Your task to perform on an android device: turn off sleep mode Image 0: 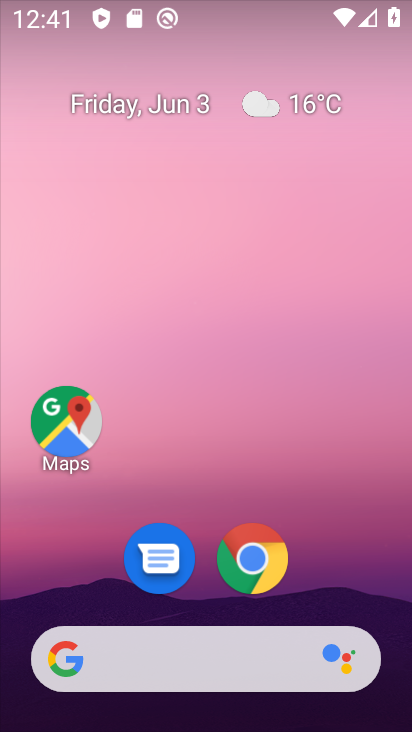
Step 0: drag from (378, 592) to (381, 304)
Your task to perform on an android device: turn off sleep mode Image 1: 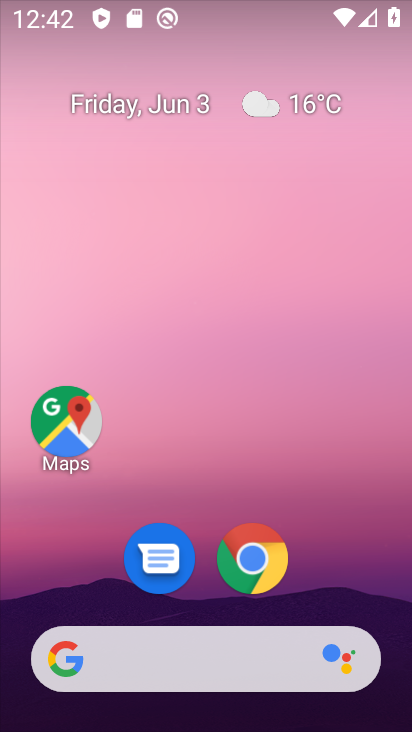
Step 1: drag from (343, 584) to (334, 172)
Your task to perform on an android device: turn off sleep mode Image 2: 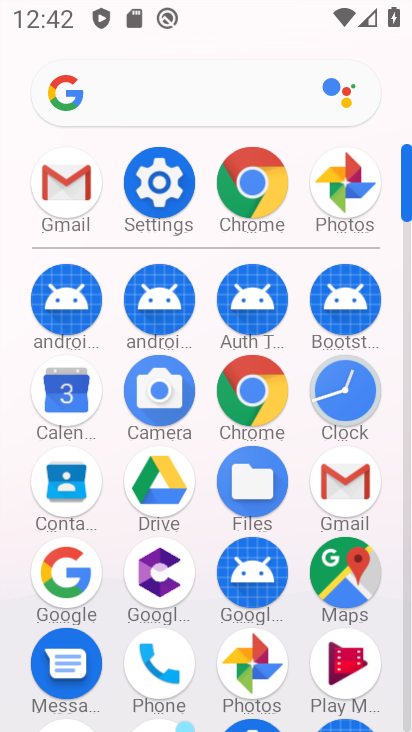
Step 2: click (146, 190)
Your task to perform on an android device: turn off sleep mode Image 3: 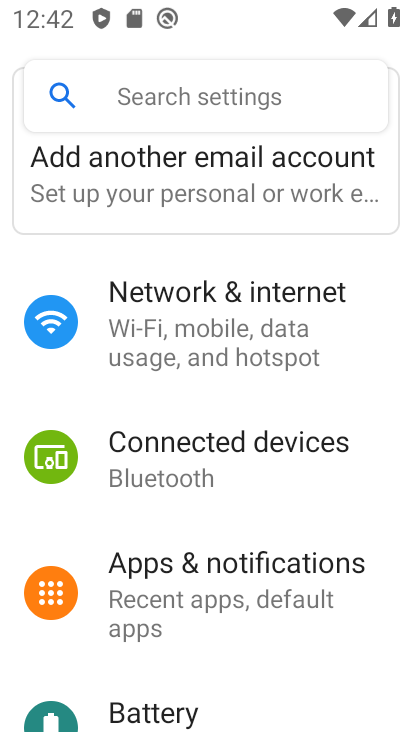
Step 3: drag from (348, 594) to (344, 397)
Your task to perform on an android device: turn off sleep mode Image 4: 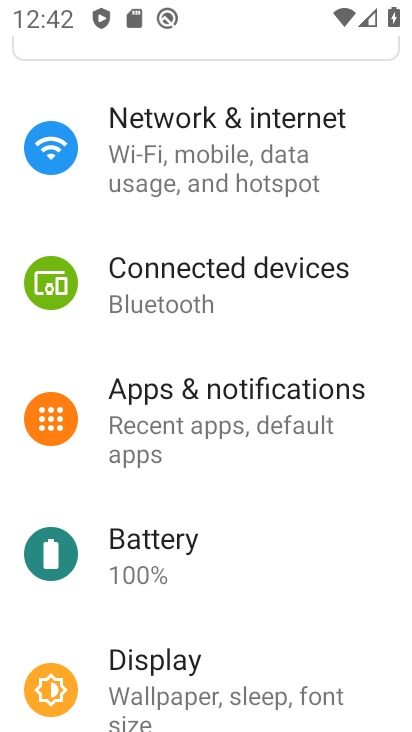
Step 4: drag from (343, 500) to (358, 340)
Your task to perform on an android device: turn off sleep mode Image 5: 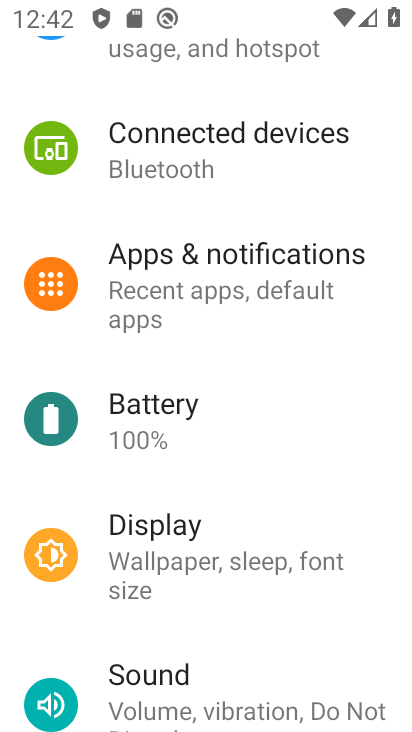
Step 5: click (203, 539)
Your task to perform on an android device: turn off sleep mode Image 6: 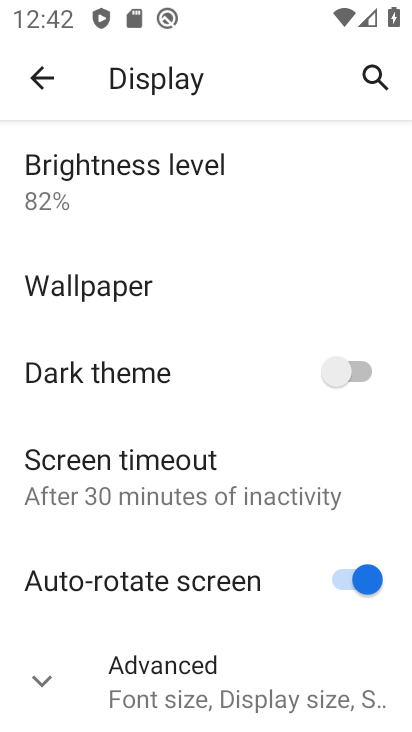
Step 6: drag from (268, 639) to (260, 445)
Your task to perform on an android device: turn off sleep mode Image 7: 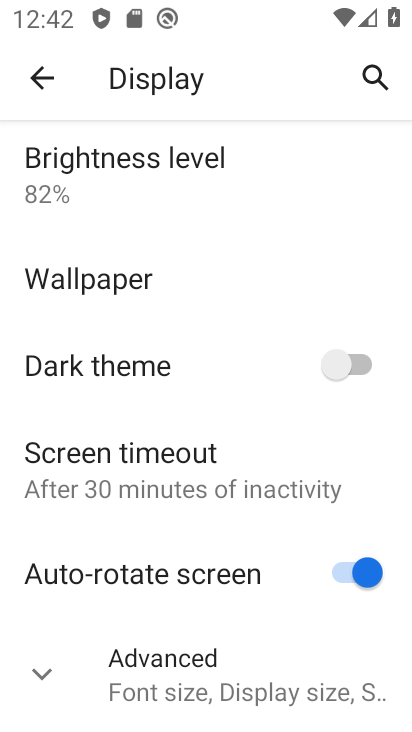
Step 7: click (190, 686)
Your task to perform on an android device: turn off sleep mode Image 8: 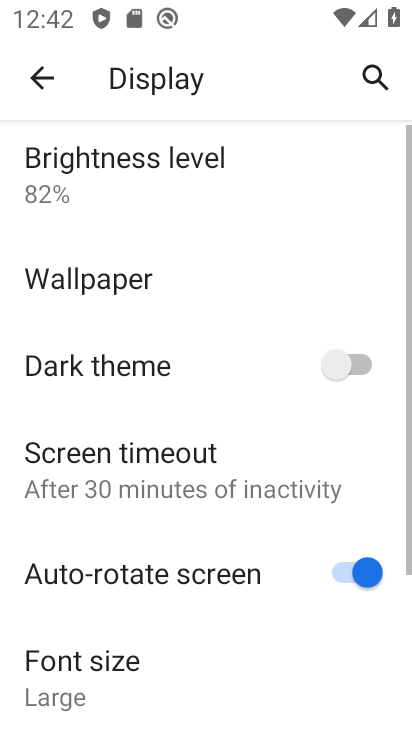
Step 8: task complete